Your task to perform on an android device: Check the news Image 0: 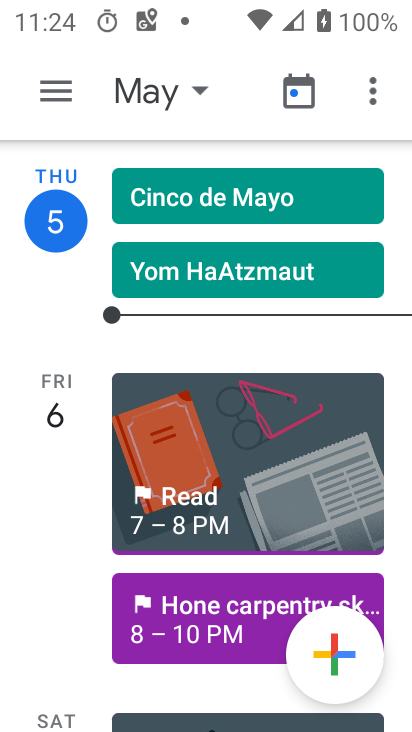
Step 0: press home button
Your task to perform on an android device: Check the news Image 1: 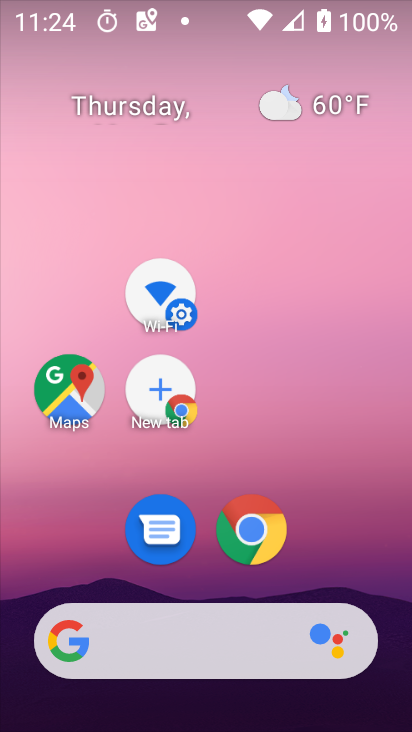
Step 1: task complete